Your task to perform on an android device: What's the weather going to be tomorrow? Image 0: 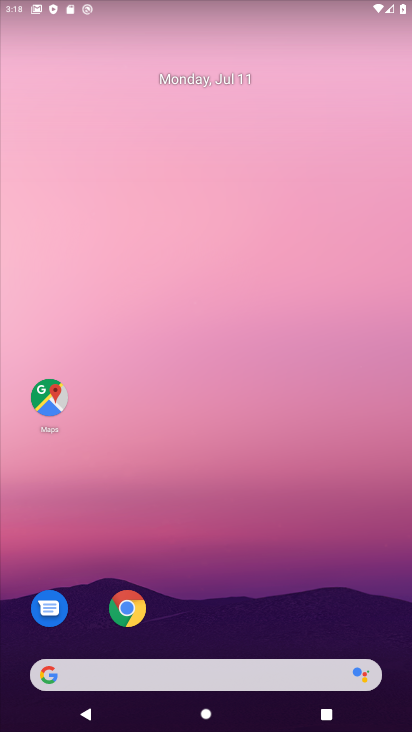
Step 0: drag from (271, 601) to (308, 24)
Your task to perform on an android device: What's the weather going to be tomorrow? Image 1: 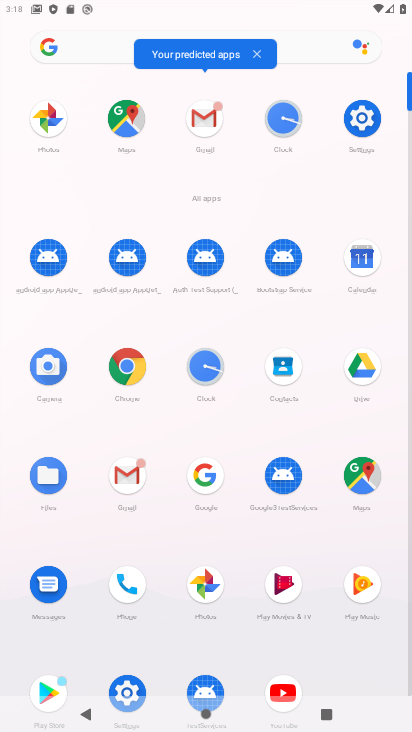
Step 1: click (56, 42)
Your task to perform on an android device: What's the weather going to be tomorrow? Image 2: 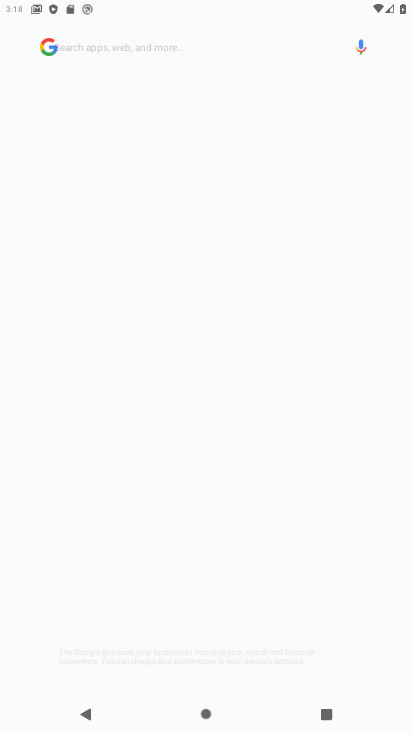
Step 2: click (45, 53)
Your task to perform on an android device: What's the weather going to be tomorrow? Image 3: 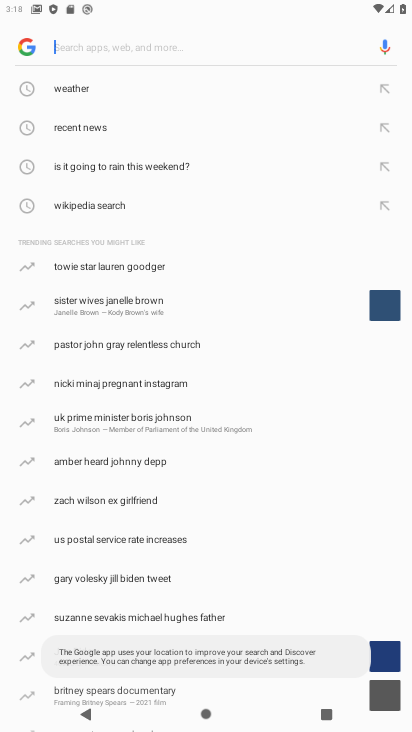
Step 3: click (17, 53)
Your task to perform on an android device: What's the weather going to be tomorrow? Image 4: 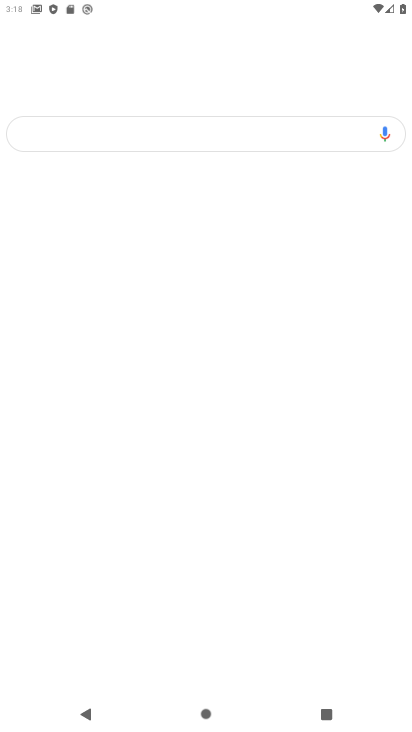
Step 4: click (33, 44)
Your task to perform on an android device: What's the weather going to be tomorrow? Image 5: 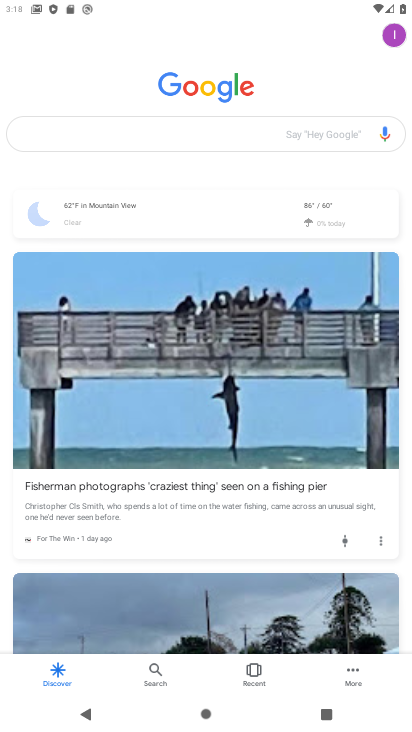
Step 5: click (262, 227)
Your task to perform on an android device: What's the weather going to be tomorrow? Image 6: 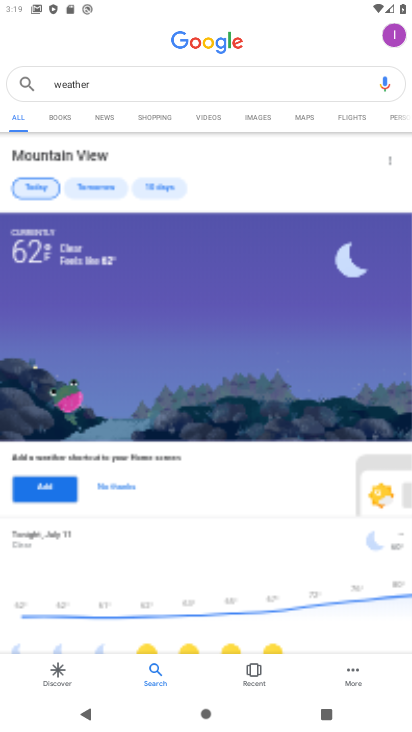
Step 6: task complete